Your task to perform on an android device: manage bookmarks in the chrome app Image 0: 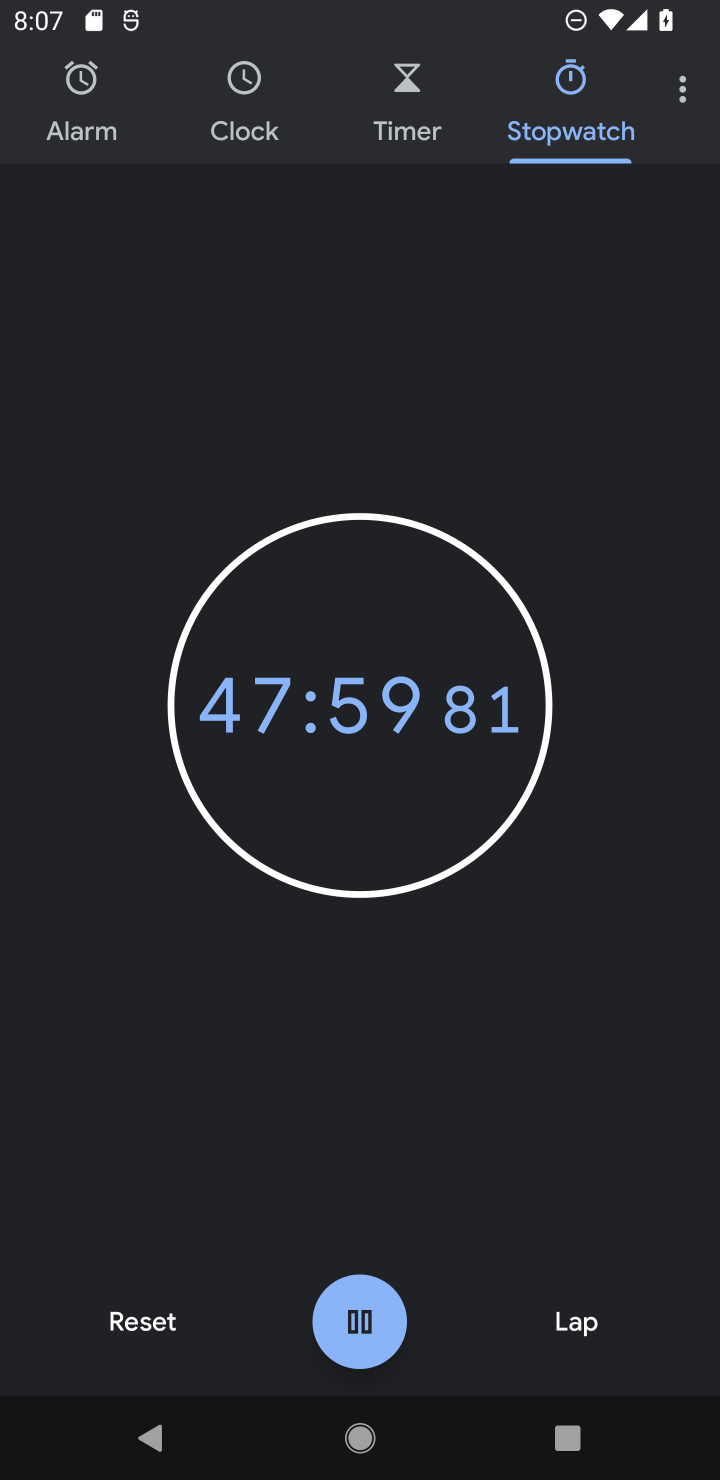
Step 0: press home button
Your task to perform on an android device: manage bookmarks in the chrome app Image 1: 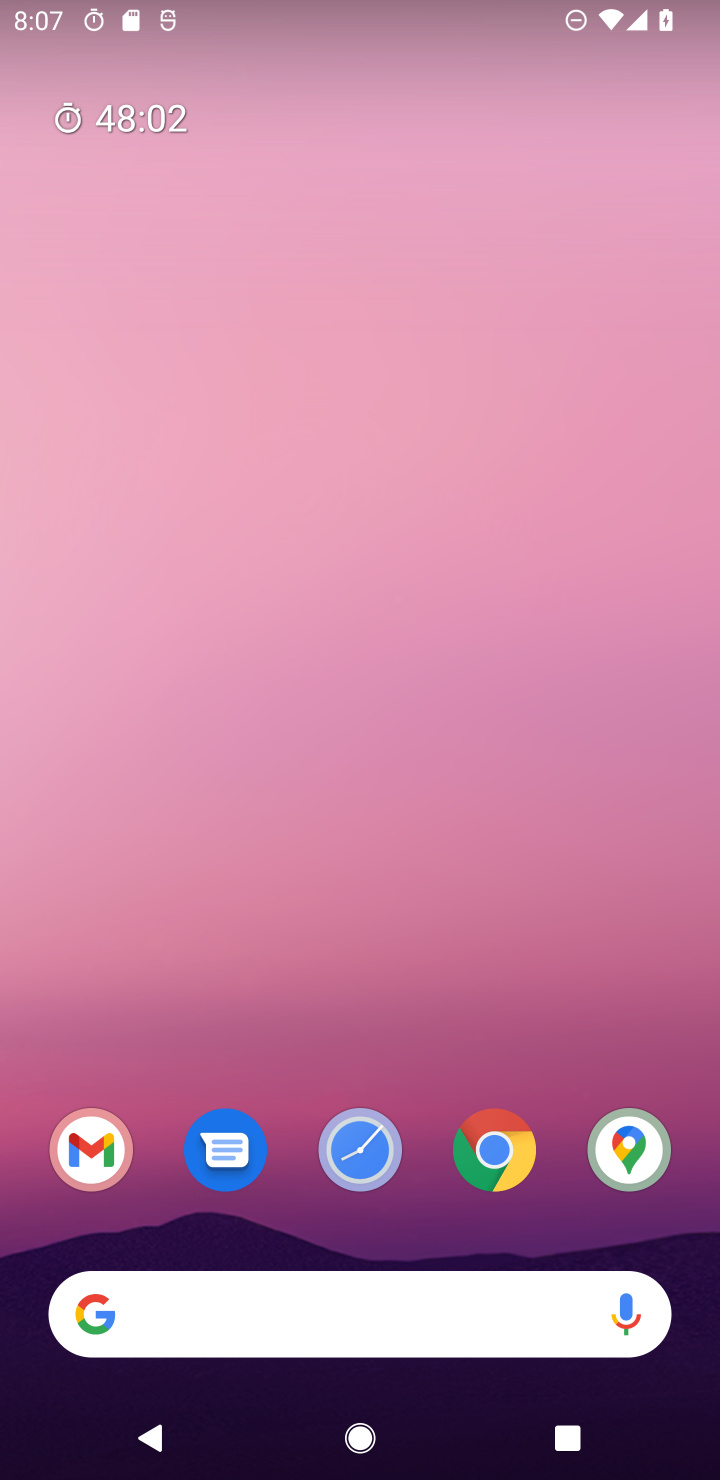
Step 1: drag from (418, 921) to (448, 32)
Your task to perform on an android device: manage bookmarks in the chrome app Image 2: 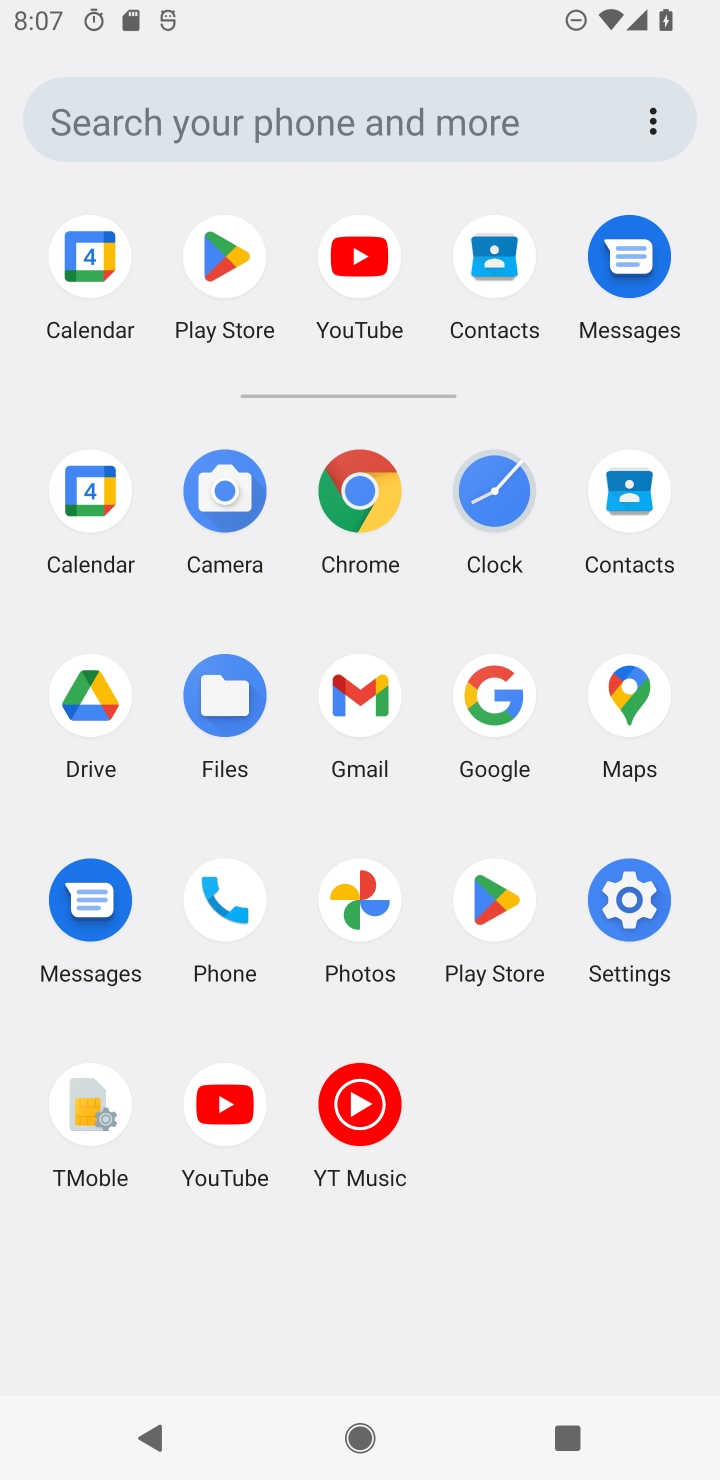
Step 2: click (365, 509)
Your task to perform on an android device: manage bookmarks in the chrome app Image 3: 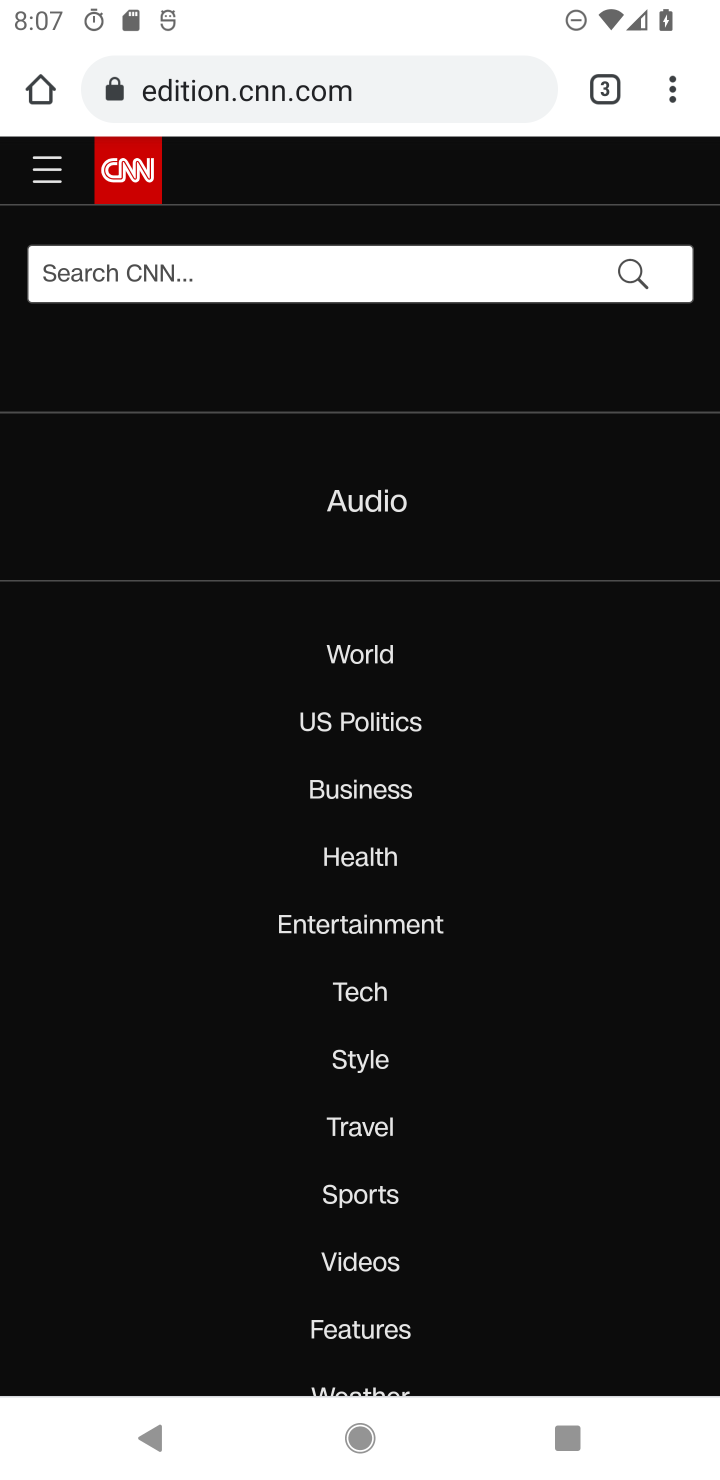
Step 3: drag from (676, 84) to (393, 645)
Your task to perform on an android device: manage bookmarks in the chrome app Image 4: 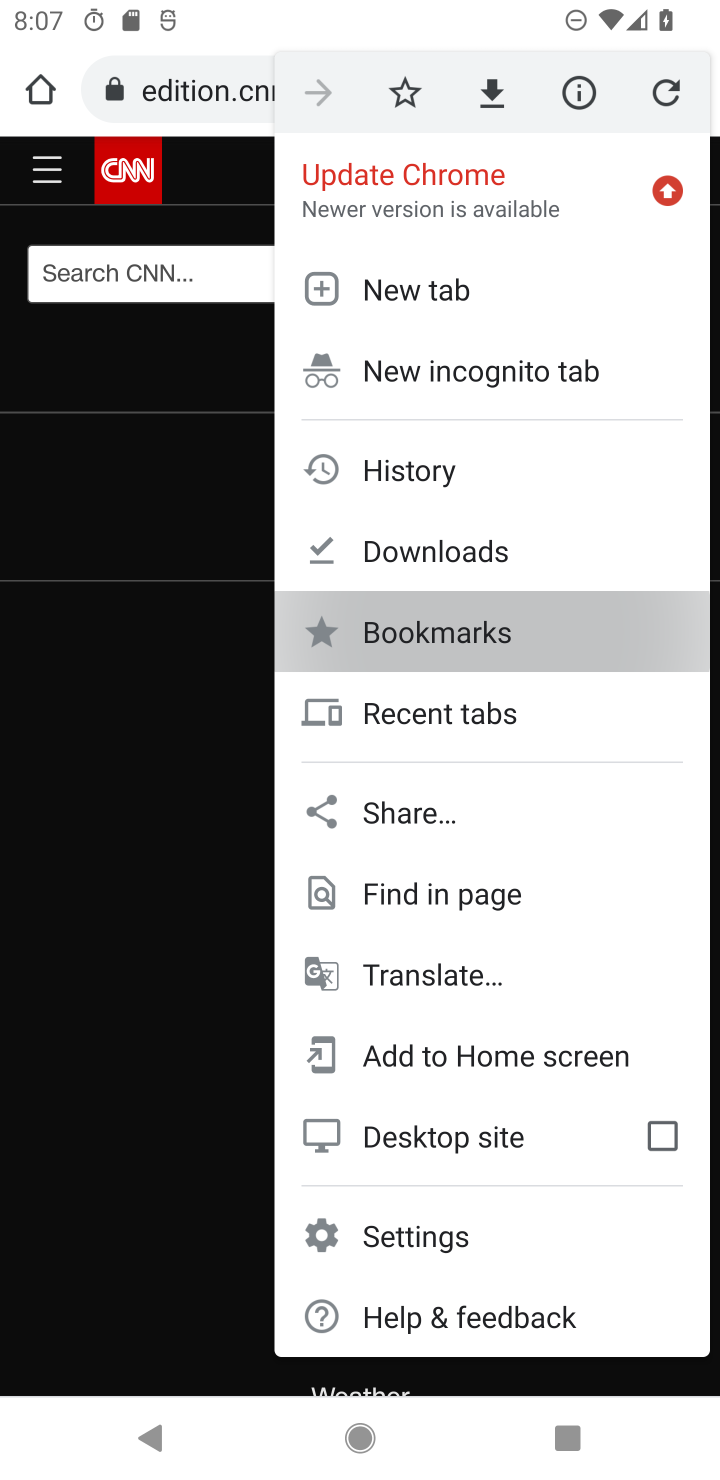
Step 4: click (393, 645)
Your task to perform on an android device: manage bookmarks in the chrome app Image 5: 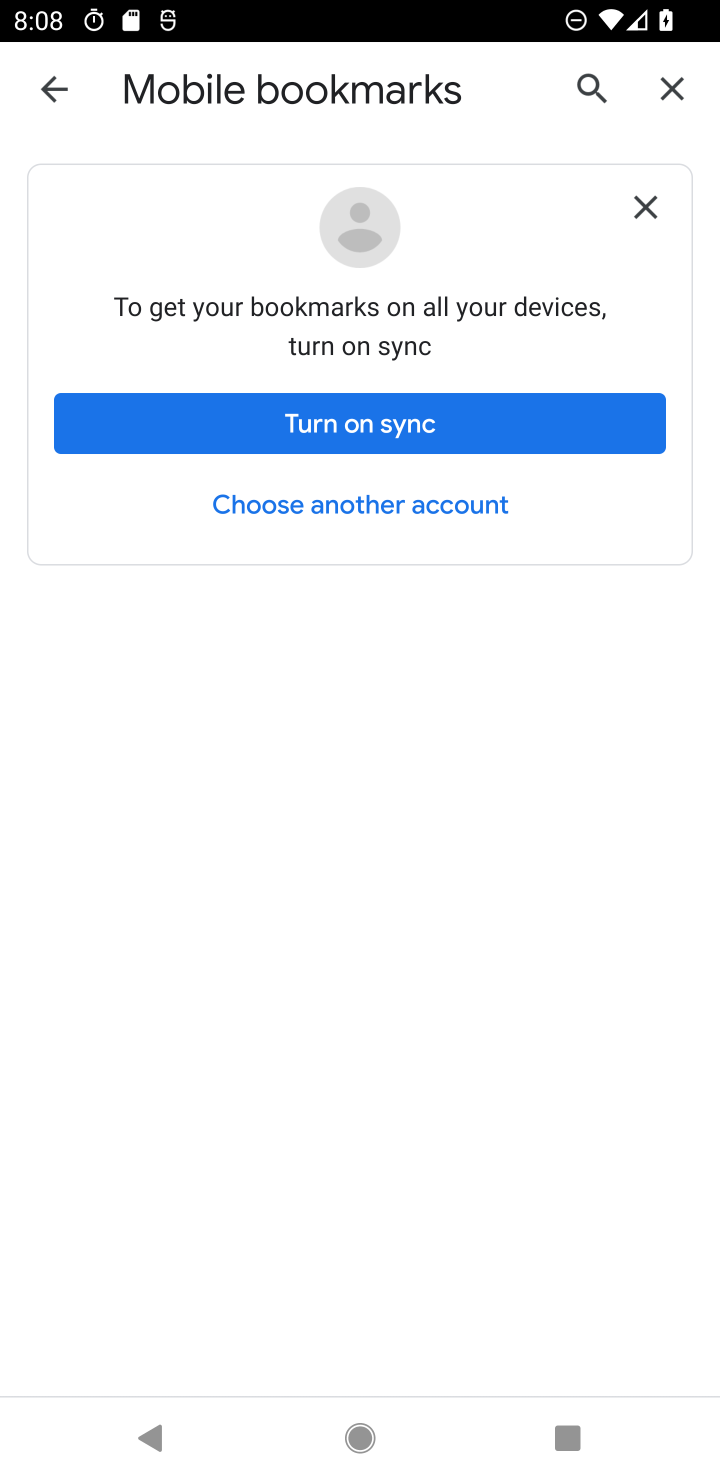
Step 5: task complete